Your task to perform on an android device: open app "Pandora - Music & Podcasts" (install if not already installed) and enter user name: "creator@yahoo.com" and password: "valuable" Image 0: 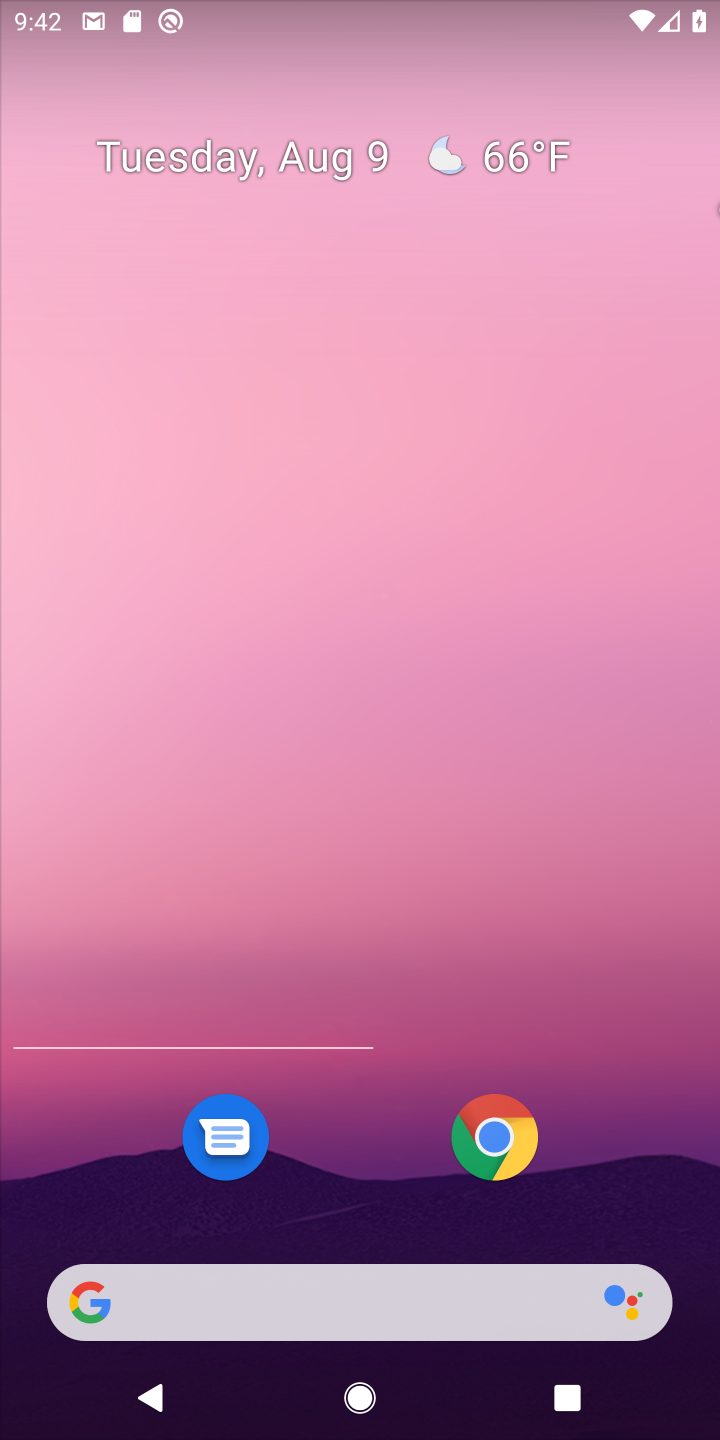
Step 0: press home button
Your task to perform on an android device: open app "Pandora - Music & Podcasts" (install if not already installed) and enter user name: "creator@yahoo.com" and password: "valuable" Image 1: 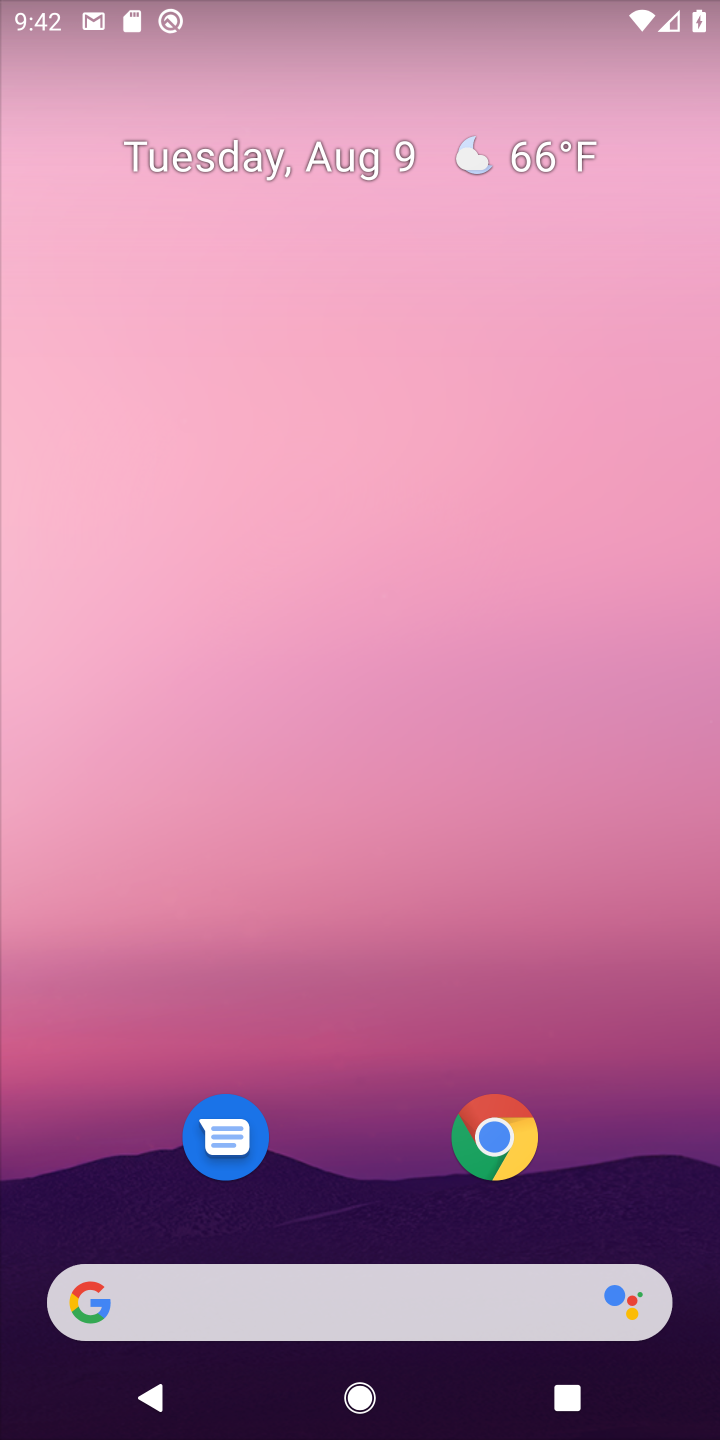
Step 1: press home button
Your task to perform on an android device: open app "Pandora - Music & Podcasts" (install if not already installed) and enter user name: "creator@yahoo.com" and password: "valuable" Image 2: 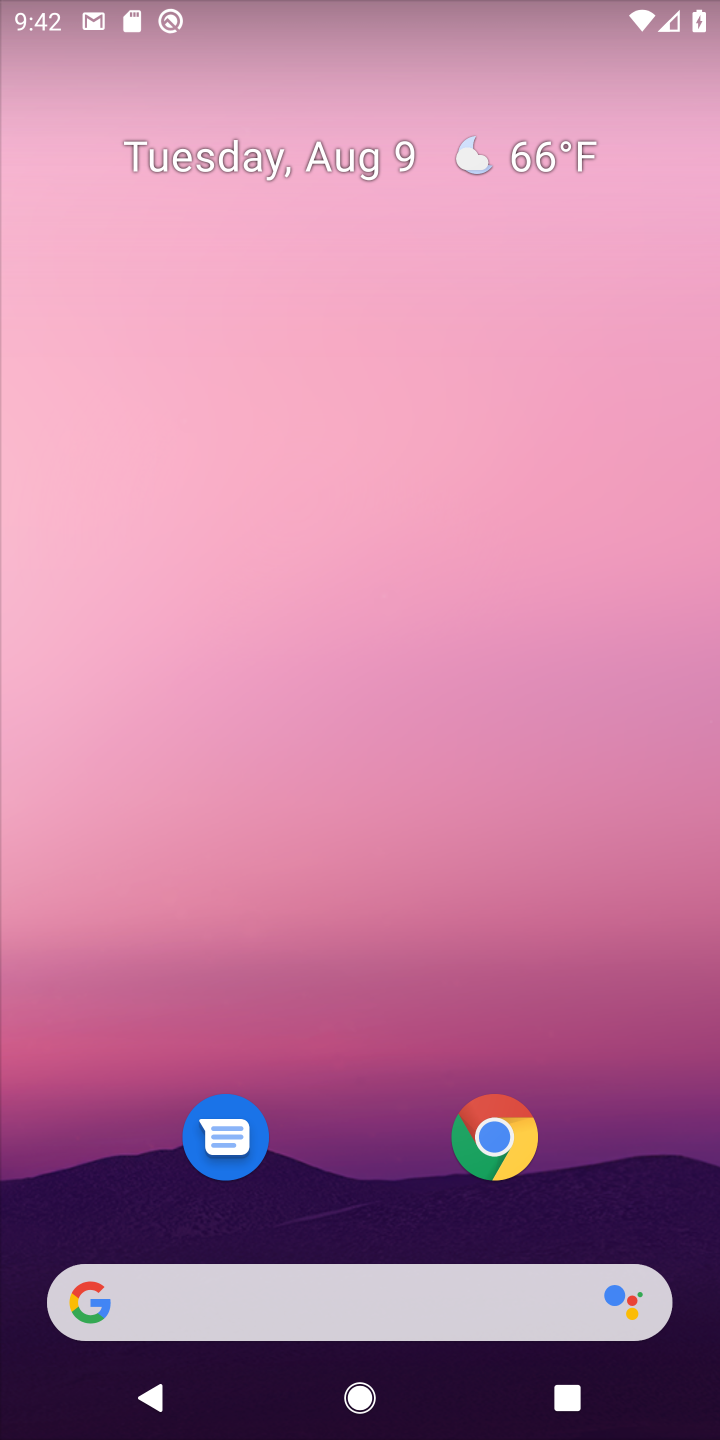
Step 2: drag from (346, 815) to (339, 263)
Your task to perform on an android device: open app "Pandora - Music & Podcasts" (install if not already installed) and enter user name: "creator@yahoo.com" and password: "valuable" Image 3: 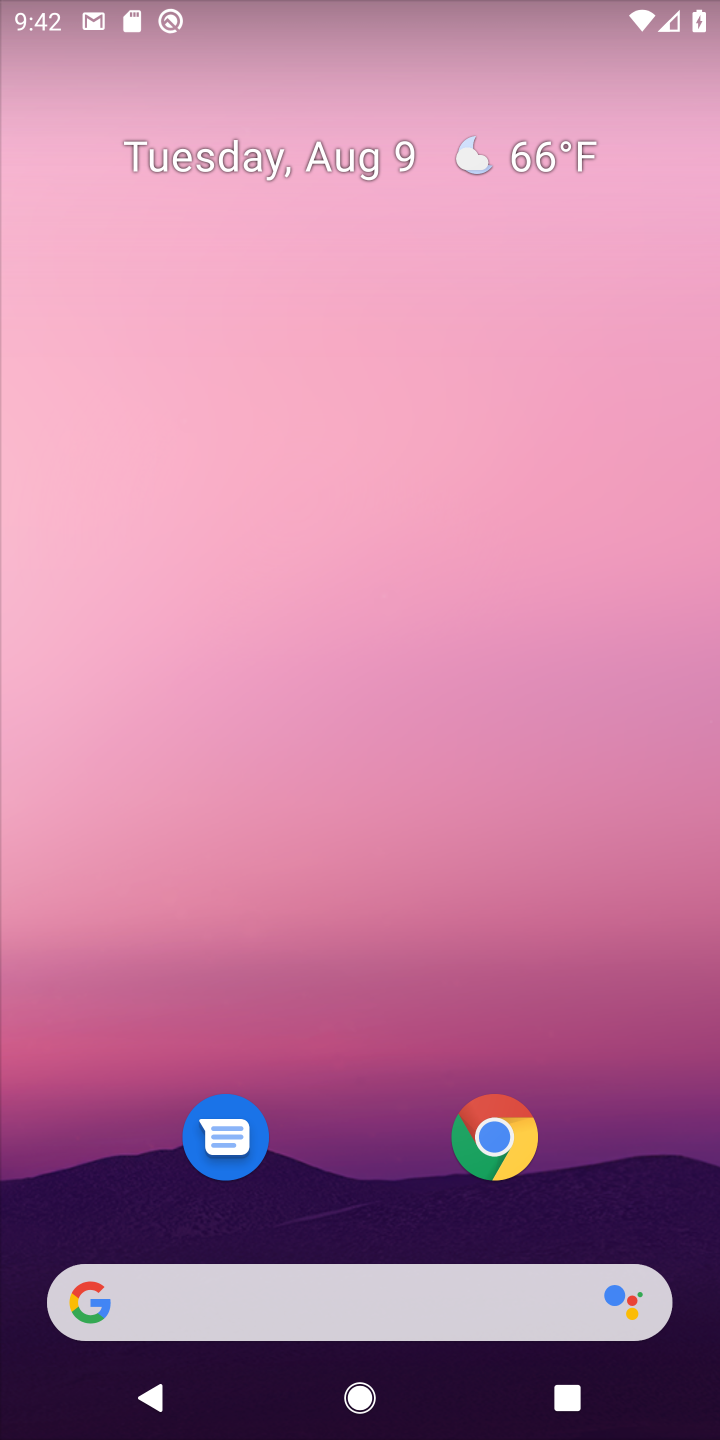
Step 3: drag from (334, 360) to (337, 211)
Your task to perform on an android device: open app "Pandora - Music & Podcasts" (install if not already installed) and enter user name: "creator@yahoo.com" and password: "valuable" Image 4: 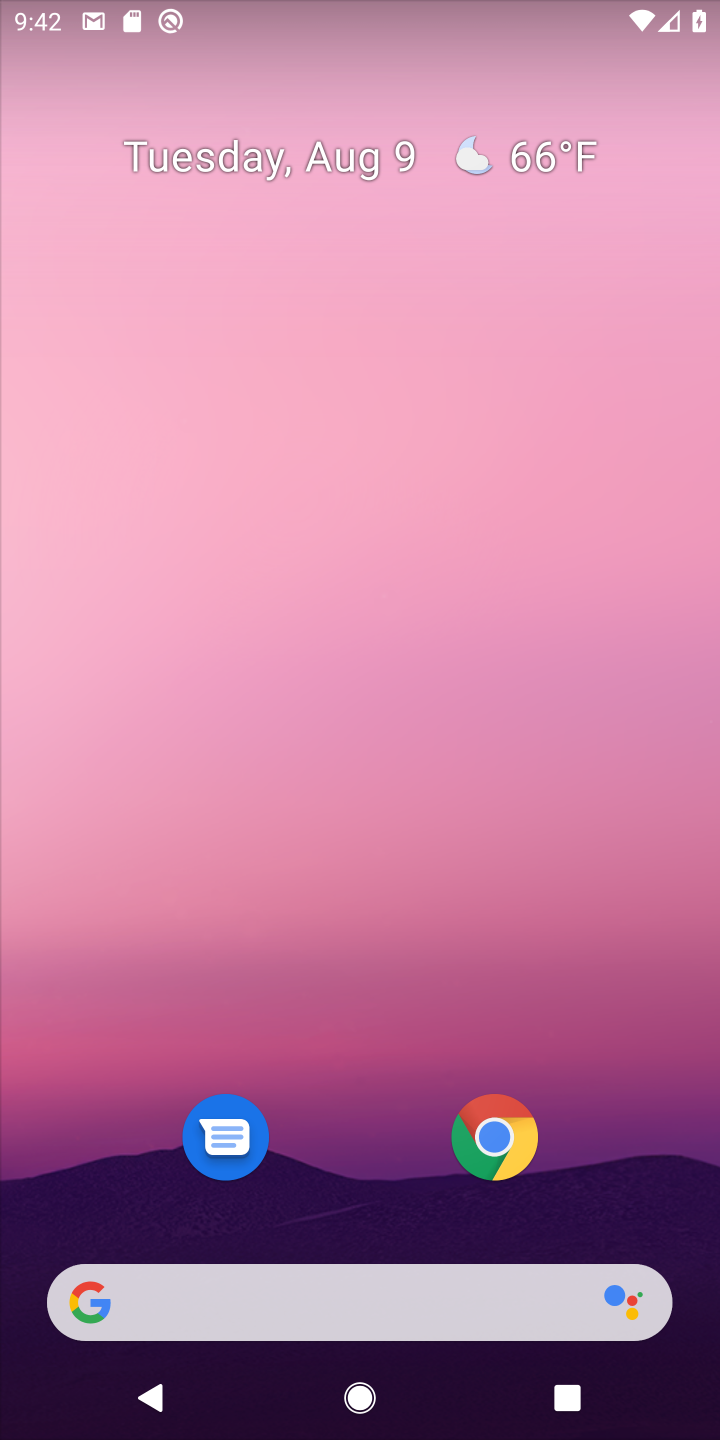
Step 4: drag from (322, 968) to (325, 191)
Your task to perform on an android device: open app "Pandora - Music & Podcasts" (install if not already installed) and enter user name: "creator@yahoo.com" and password: "valuable" Image 5: 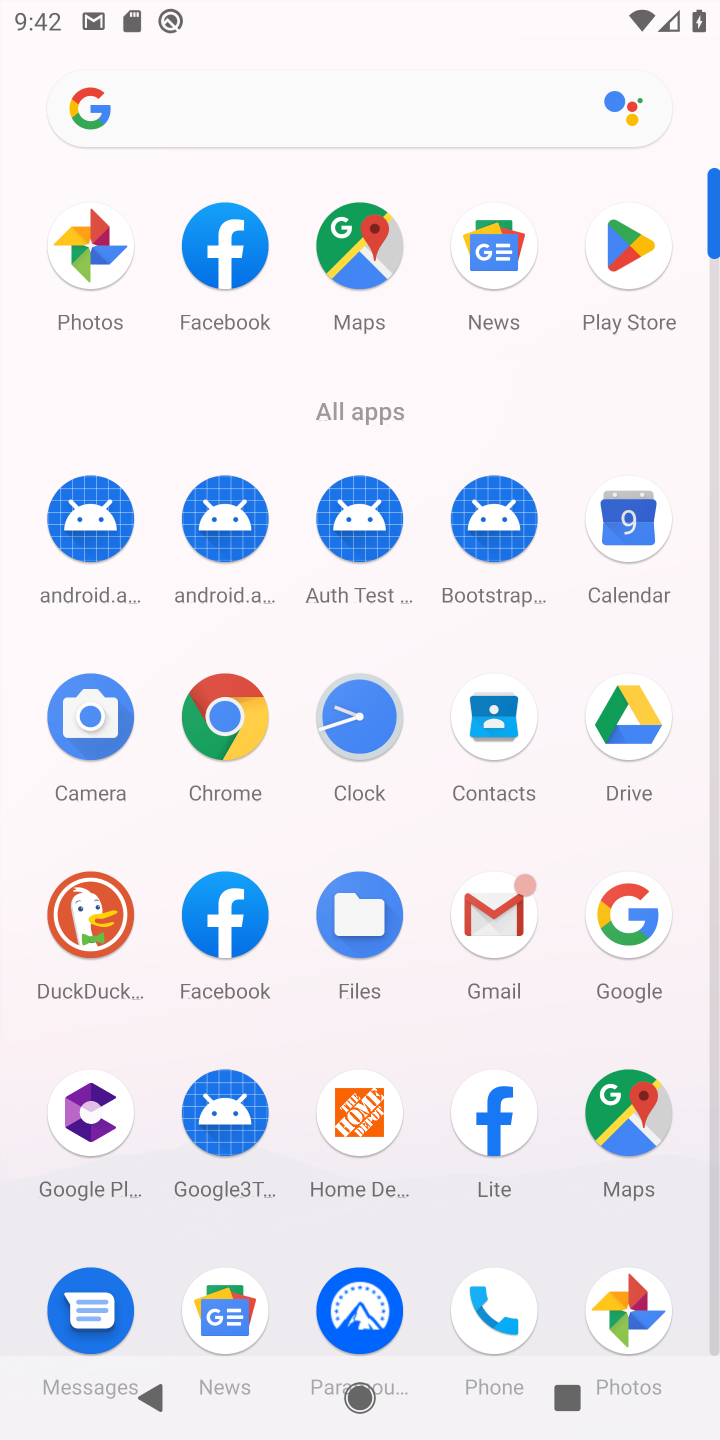
Step 5: click (627, 252)
Your task to perform on an android device: open app "Pandora - Music & Podcasts" (install if not already installed) and enter user name: "creator@yahoo.com" and password: "valuable" Image 6: 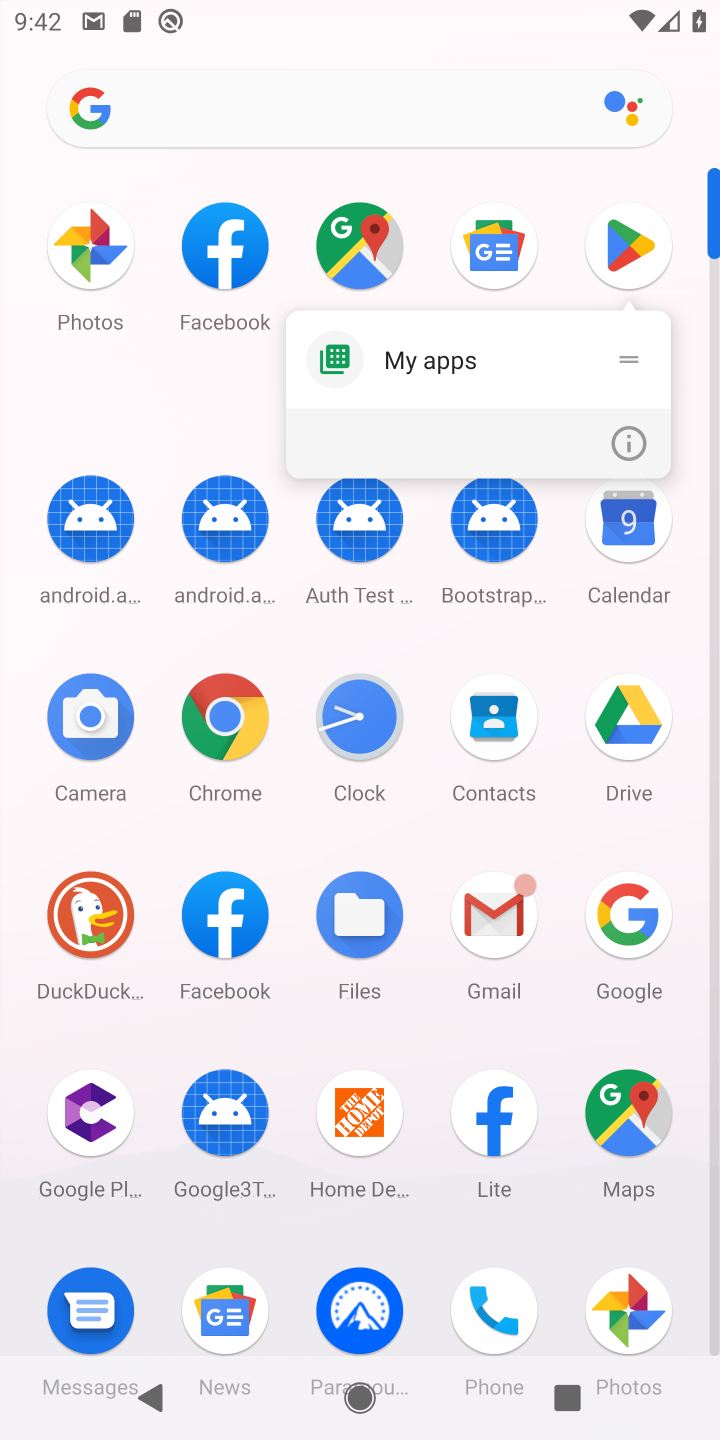
Step 6: click (627, 252)
Your task to perform on an android device: open app "Pandora - Music & Podcasts" (install if not already installed) and enter user name: "creator@yahoo.com" and password: "valuable" Image 7: 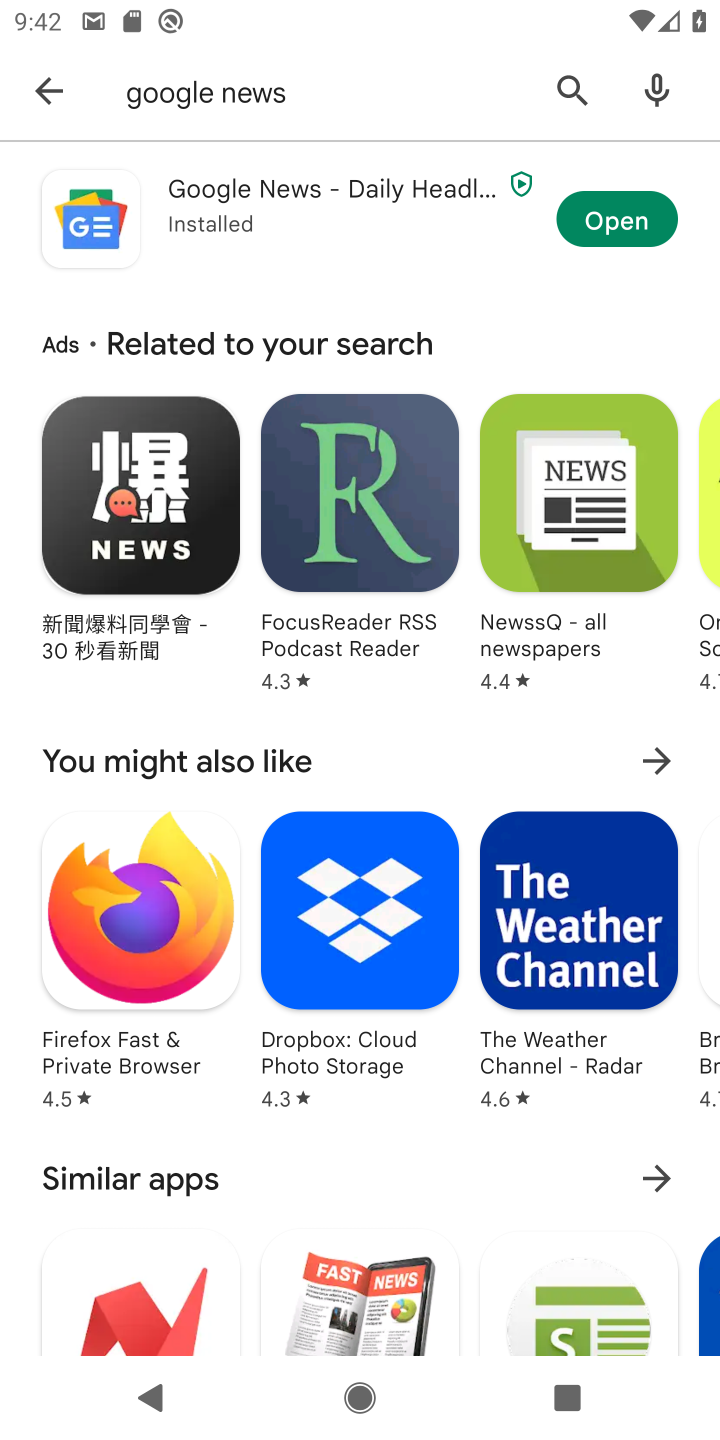
Step 7: click (571, 102)
Your task to perform on an android device: open app "Pandora - Music & Podcasts" (install if not already installed) and enter user name: "creator@yahoo.com" and password: "valuable" Image 8: 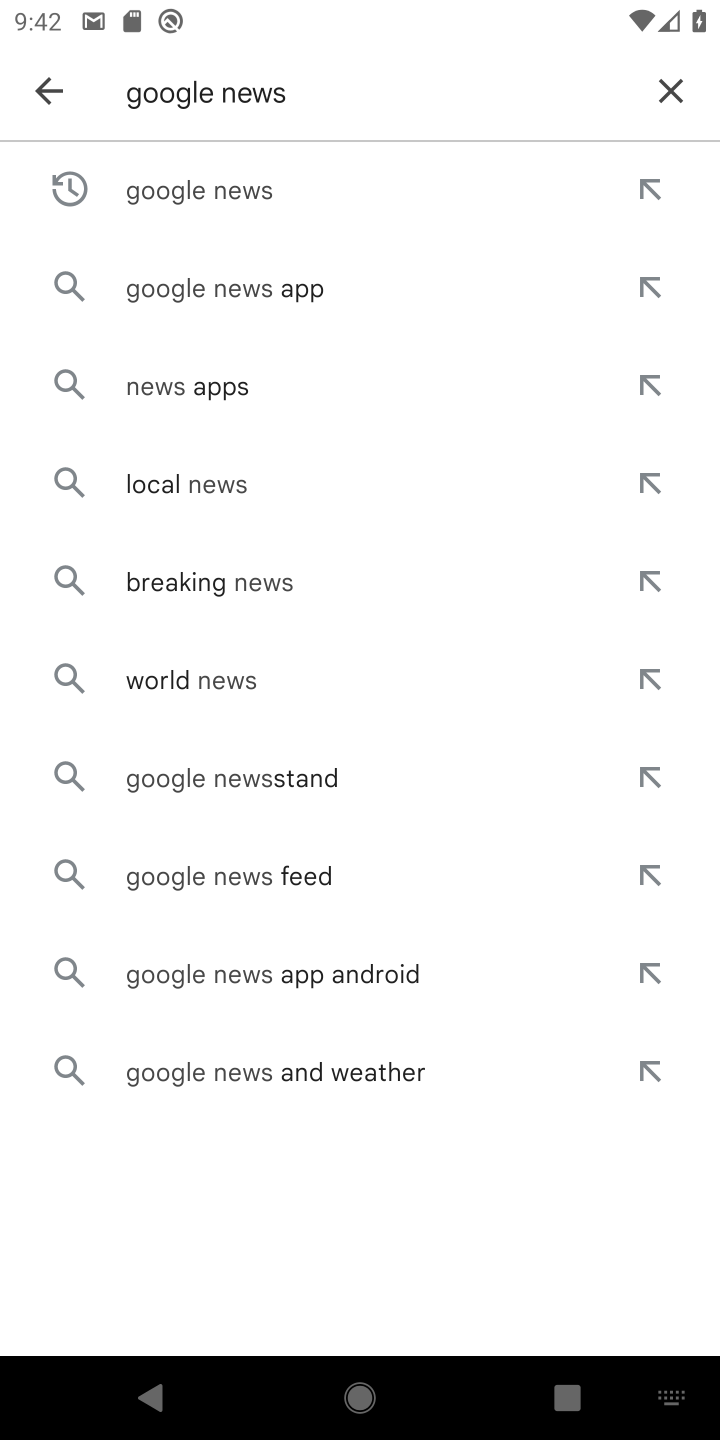
Step 8: click (670, 85)
Your task to perform on an android device: open app "Pandora - Music & Podcasts" (install if not already installed) and enter user name: "creator@yahoo.com" and password: "valuable" Image 9: 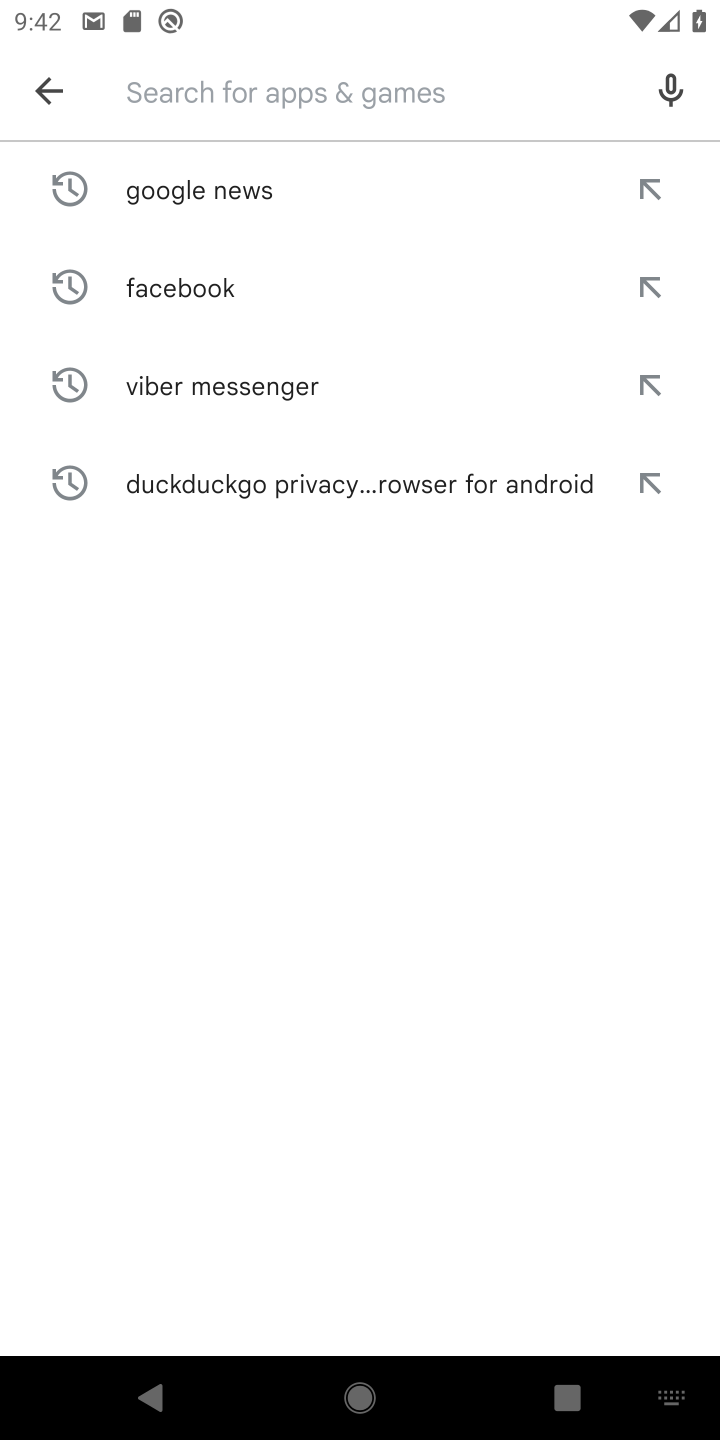
Step 9: type "Pandora - Music & Podcasts"
Your task to perform on an android device: open app "Pandora - Music & Podcasts" (install if not already installed) and enter user name: "creator@yahoo.com" and password: "valuable" Image 10: 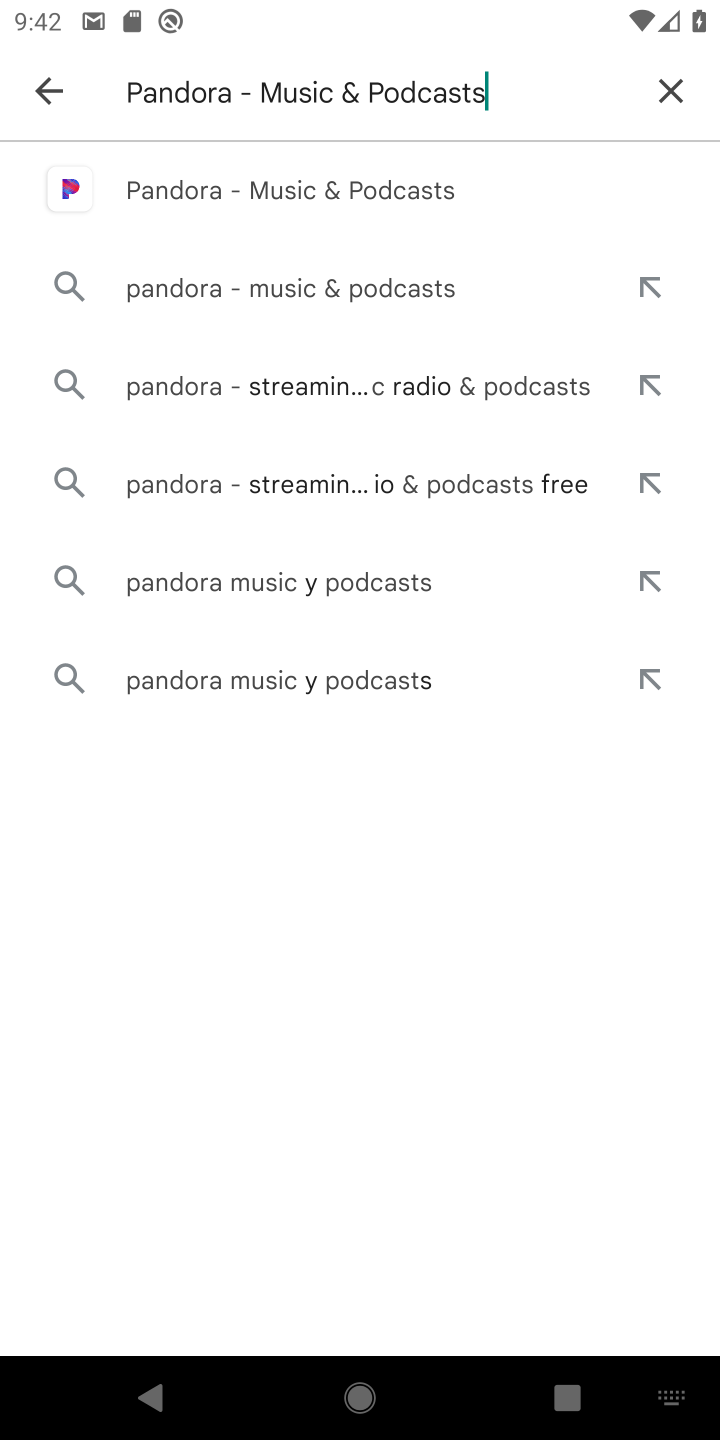
Step 10: type ""
Your task to perform on an android device: open app "Pandora - Music & Podcasts" (install if not already installed) and enter user name: "creator@yahoo.com" and password: "valuable" Image 11: 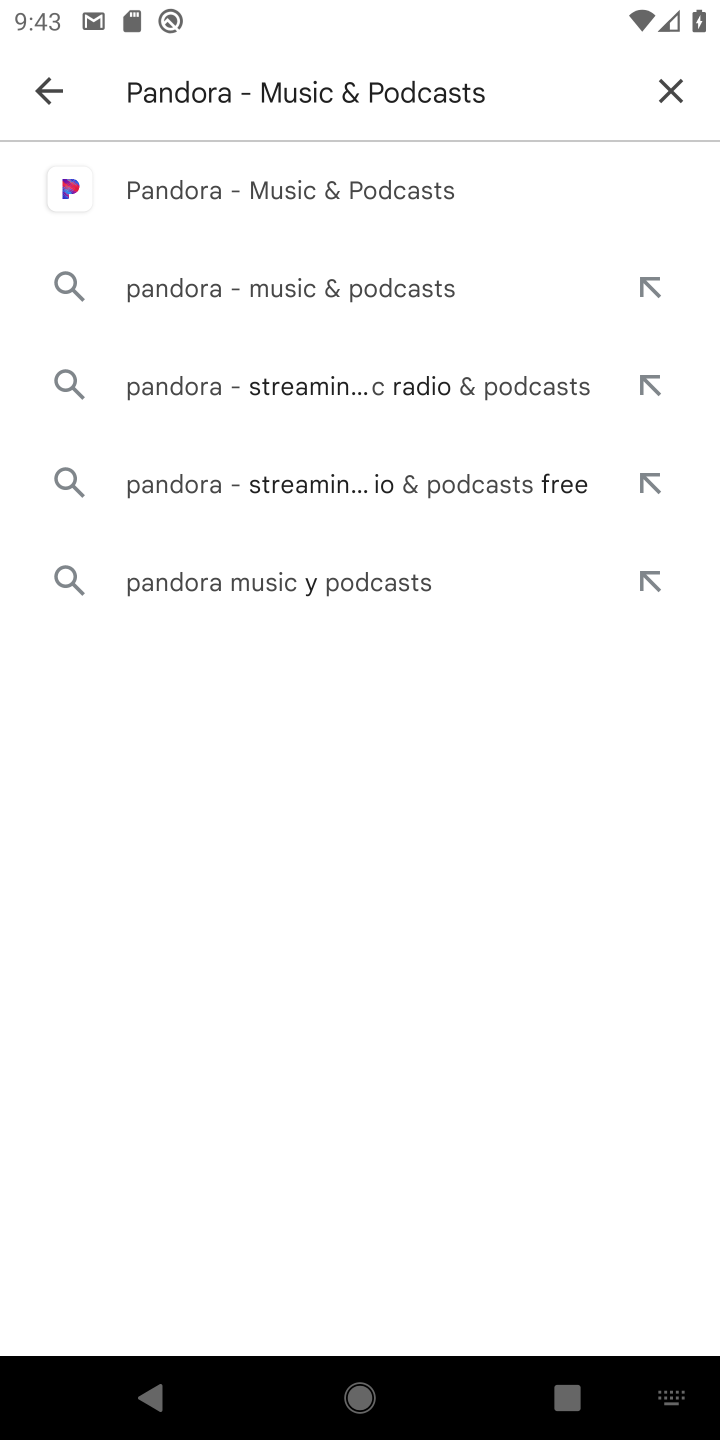
Step 11: click (250, 200)
Your task to perform on an android device: open app "Pandora - Music & Podcasts" (install if not already installed) and enter user name: "creator@yahoo.com" and password: "valuable" Image 12: 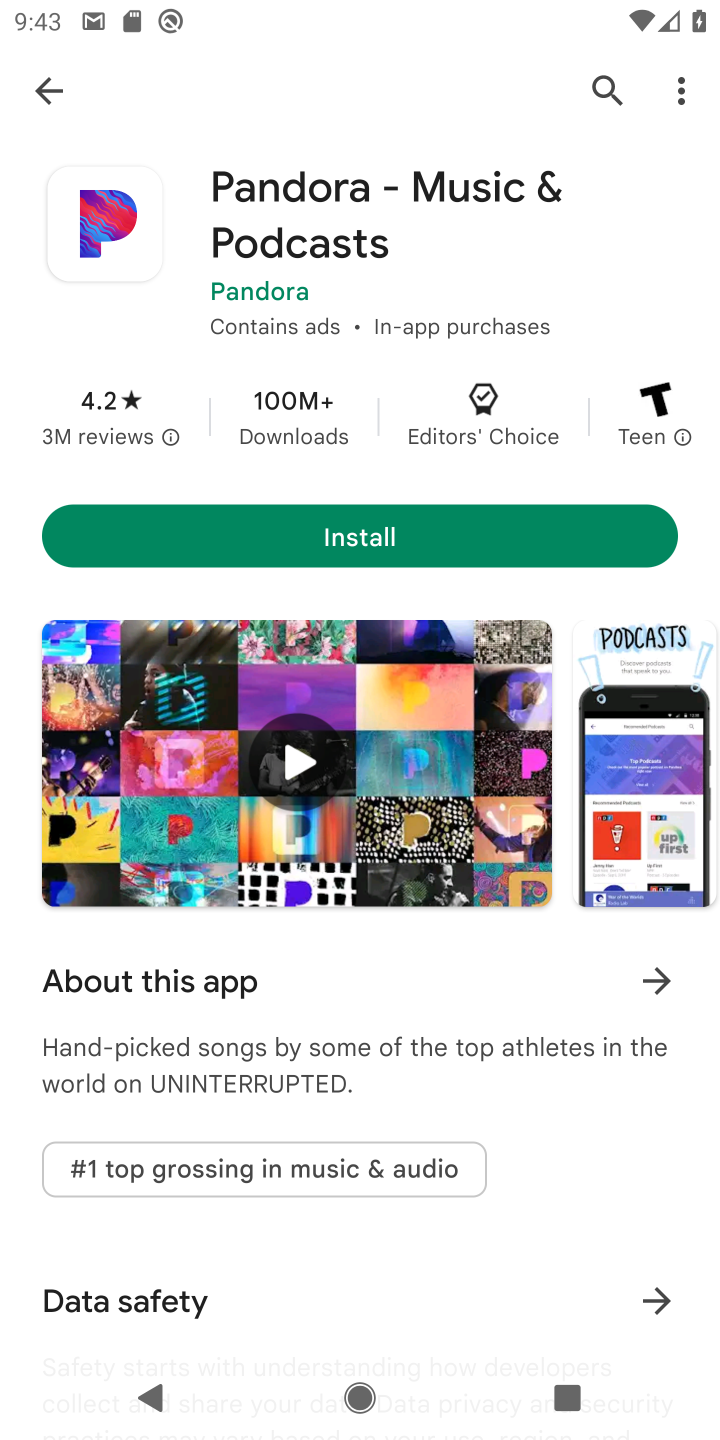
Step 12: click (369, 532)
Your task to perform on an android device: open app "Pandora - Music & Podcasts" (install if not already installed) and enter user name: "creator@yahoo.com" and password: "valuable" Image 13: 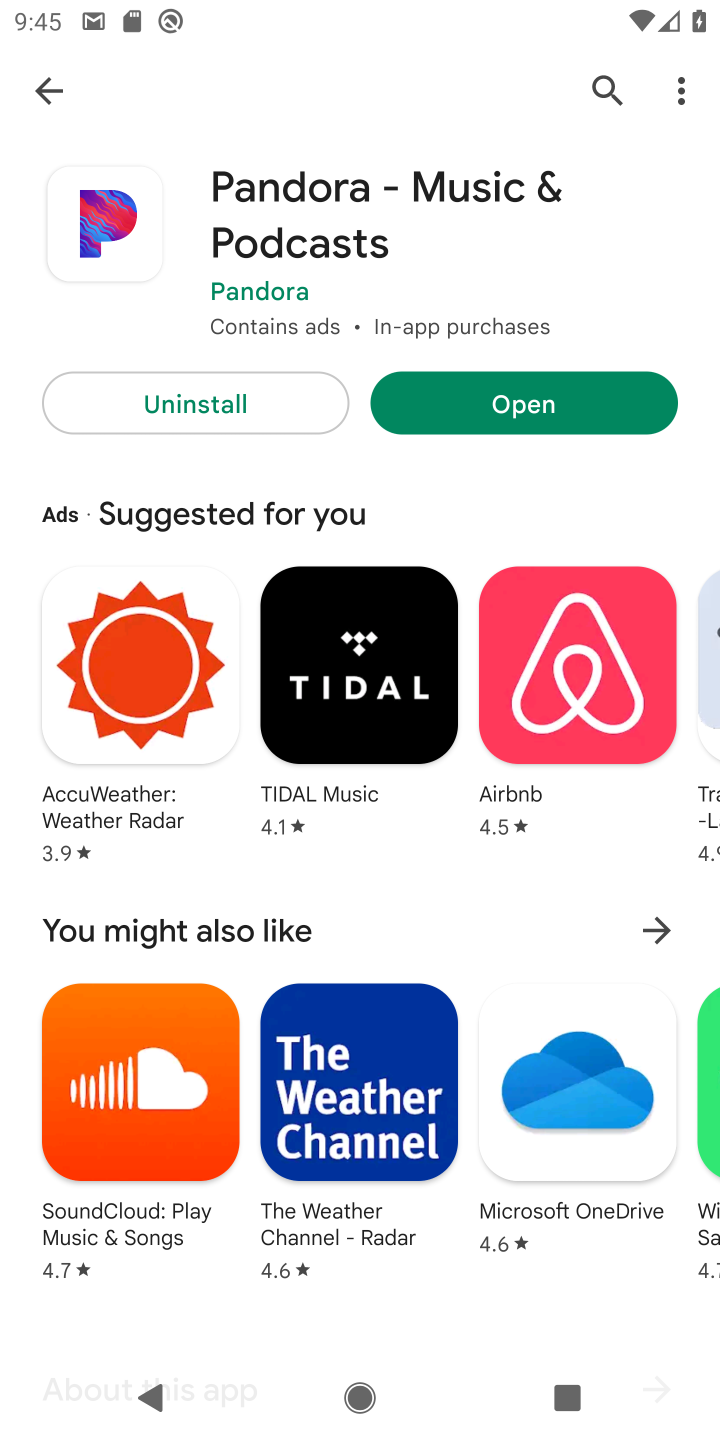
Step 13: click (439, 420)
Your task to perform on an android device: open app "Pandora - Music & Podcasts" (install if not already installed) and enter user name: "creator@yahoo.com" and password: "valuable" Image 14: 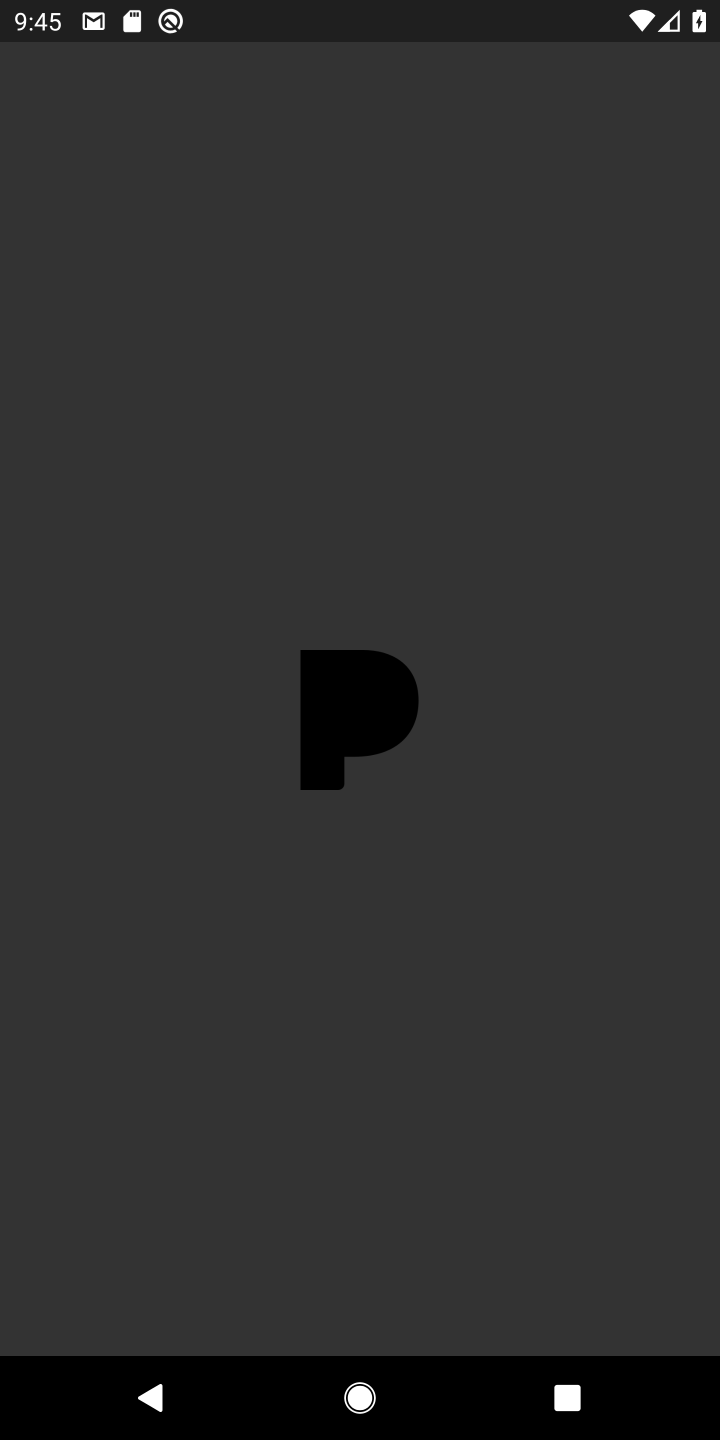
Step 14: task complete